Your task to perform on an android device: turn off sleep mode Image 0: 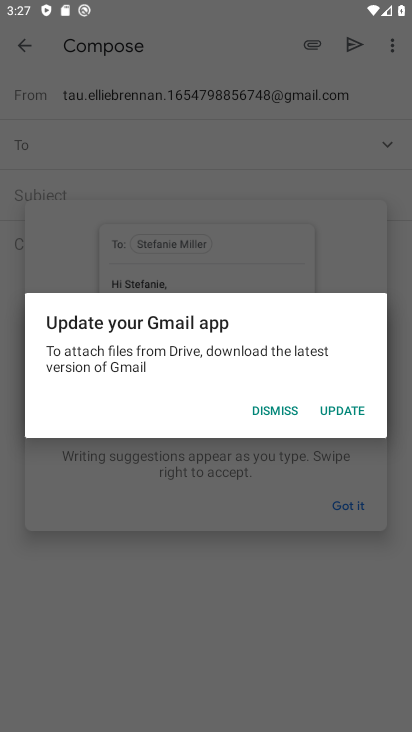
Step 0: press home button
Your task to perform on an android device: turn off sleep mode Image 1: 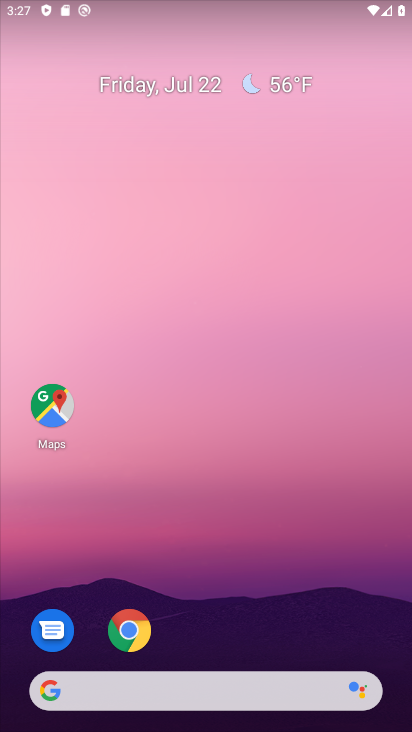
Step 1: drag from (255, 657) to (134, 10)
Your task to perform on an android device: turn off sleep mode Image 2: 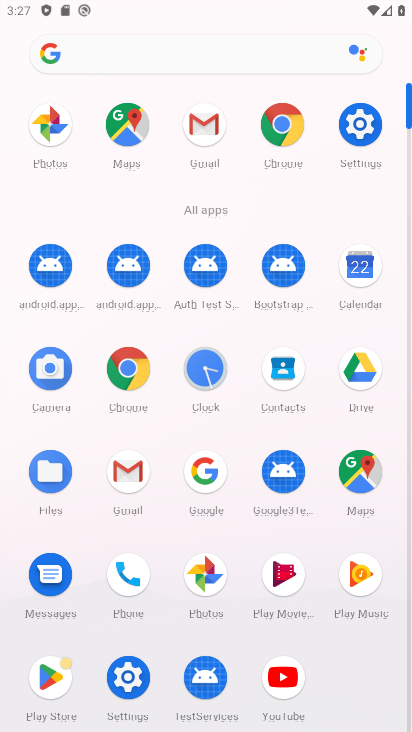
Step 2: click (352, 126)
Your task to perform on an android device: turn off sleep mode Image 3: 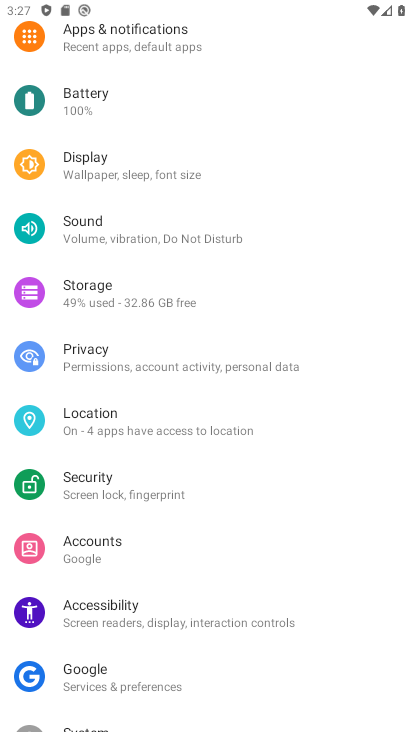
Step 3: click (116, 156)
Your task to perform on an android device: turn off sleep mode Image 4: 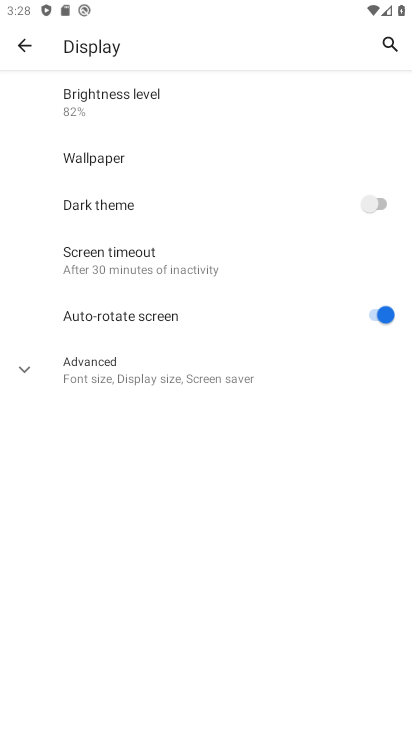
Step 4: click (153, 368)
Your task to perform on an android device: turn off sleep mode Image 5: 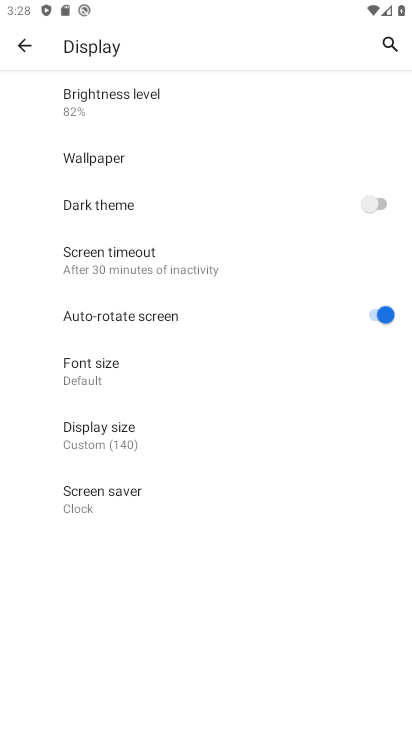
Step 5: task complete